Your task to perform on an android device: delete the emails in spam in the gmail app Image 0: 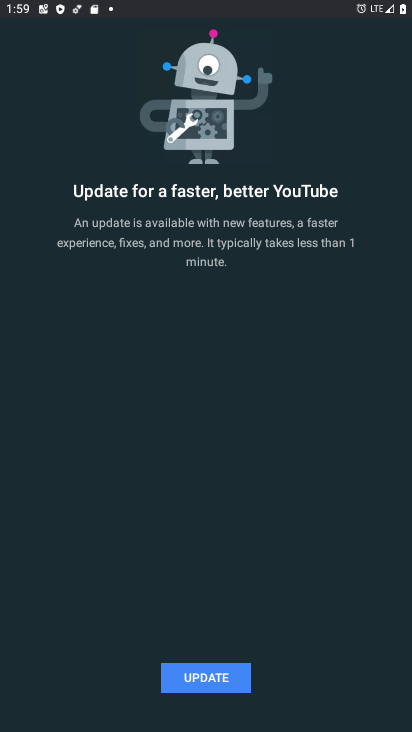
Step 0: press home button
Your task to perform on an android device: delete the emails in spam in the gmail app Image 1: 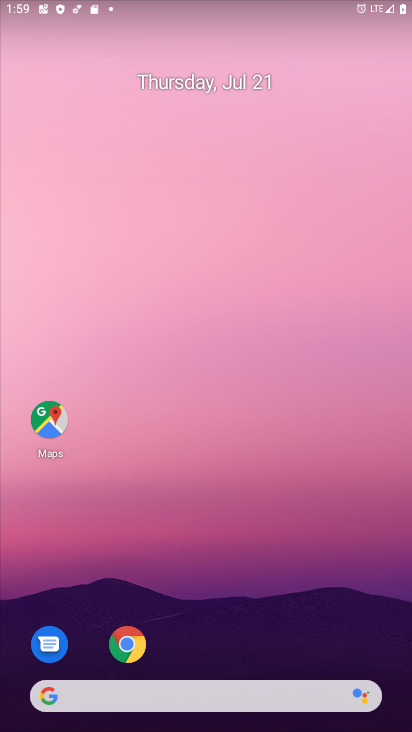
Step 1: drag from (189, 650) to (276, 175)
Your task to perform on an android device: delete the emails in spam in the gmail app Image 2: 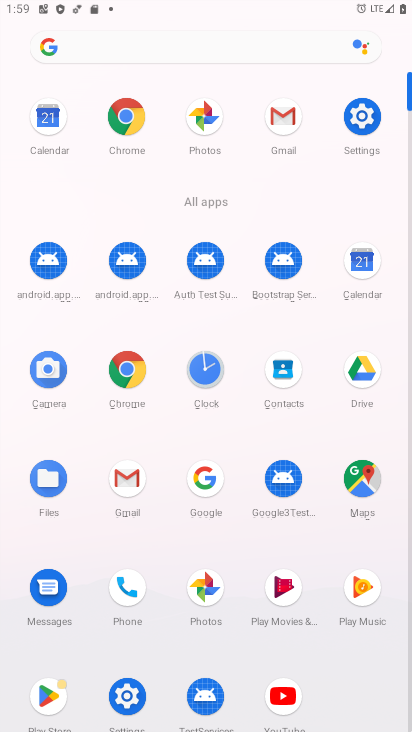
Step 2: click (135, 479)
Your task to perform on an android device: delete the emails in spam in the gmail app Image 3: 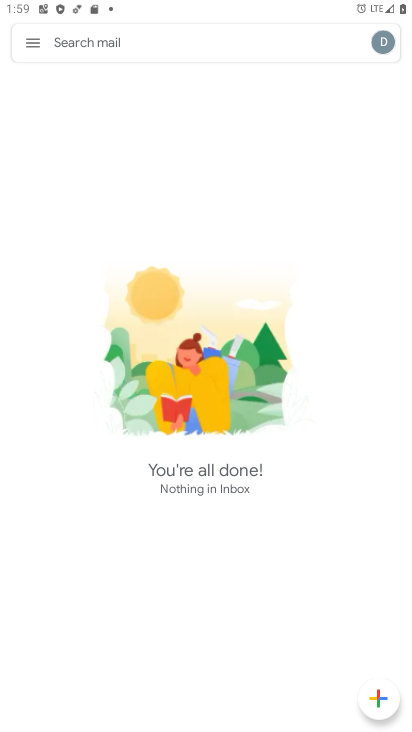
Step 3: click (33, 43)
Your task to perform on an android device: delete the emails in spam in the gmail app Image 4: 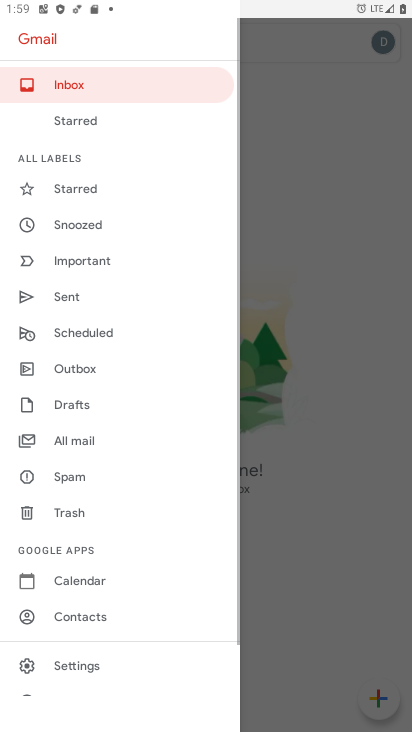
Step 4: click (77, 475)
Your task to perform on an android device: delete the emails in spam in the gmail app Image 5: 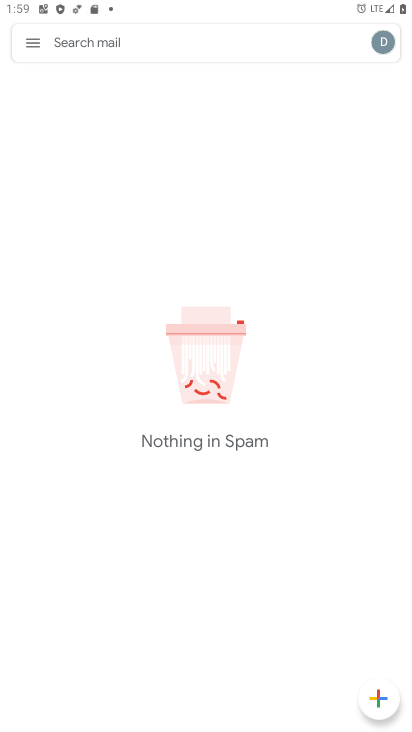
Step 5: task complete